Your task to perform on an android device: Go to battery settings Image 0: 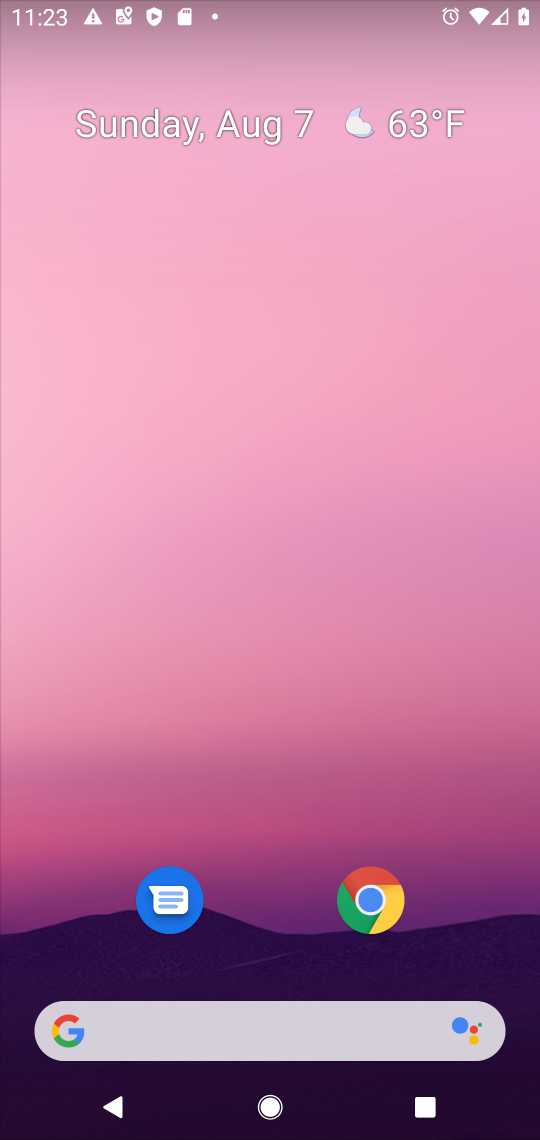
Step 0: press home button
Your task to perform on an android device: Go to battery settings Image 1: 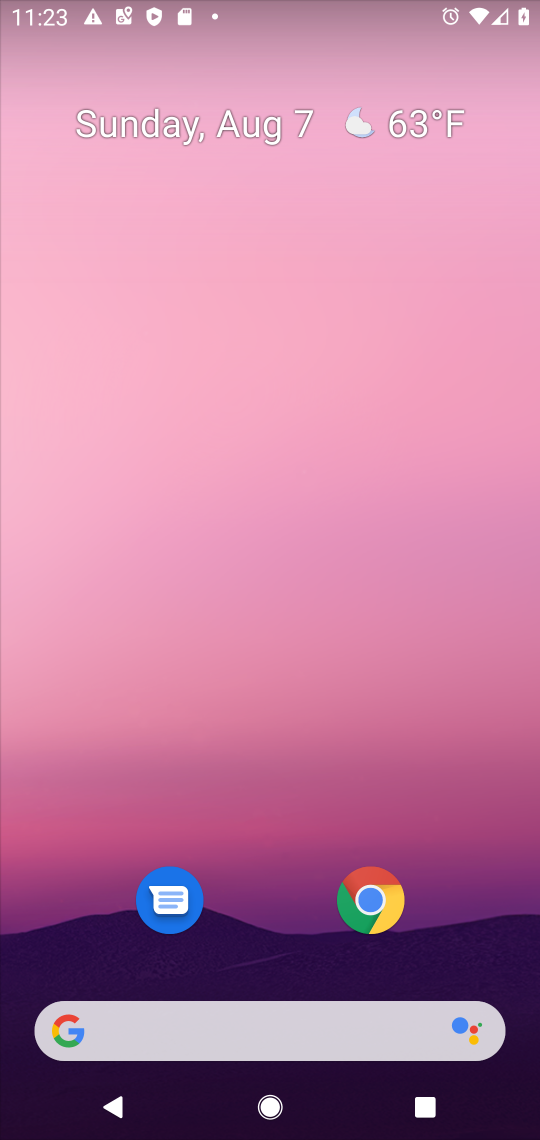
Step 1: drag from (280, 947) to (293, 48)
Your task to perform on an android device: Go to battery settings Image 2: 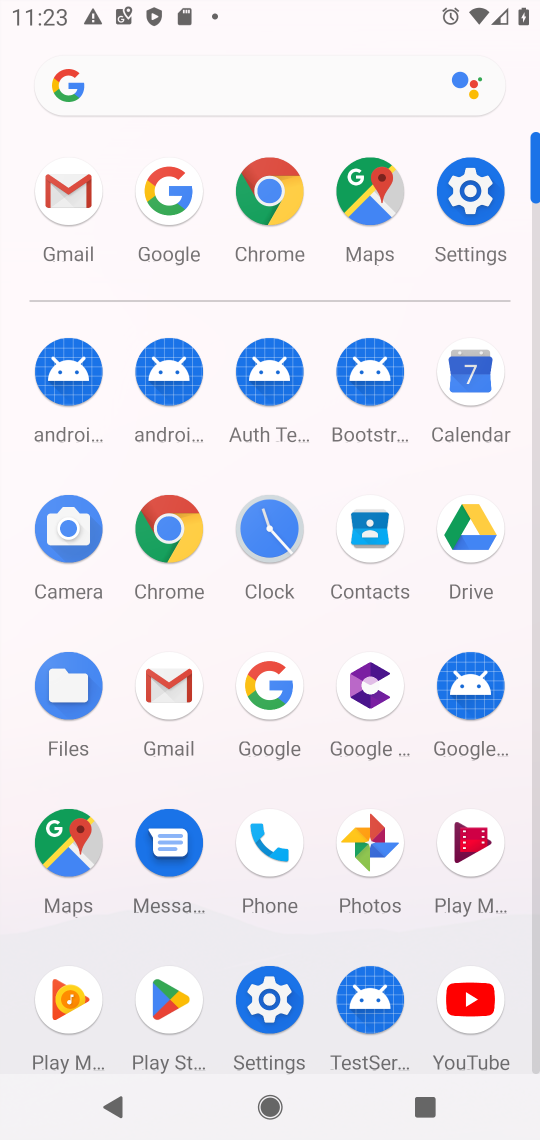
Step 2: click (268, 994)
Your task to perform on an android device: Go to battery settings Image 3: 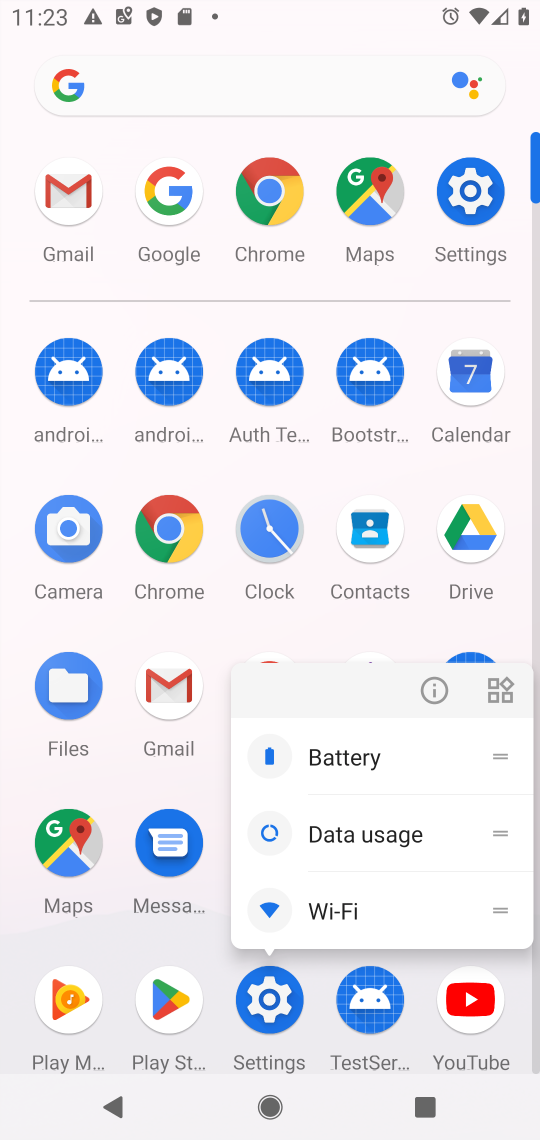
Step 3: click (262, 987)
Your task to perform on an android device: Go to battery settings Image 4: 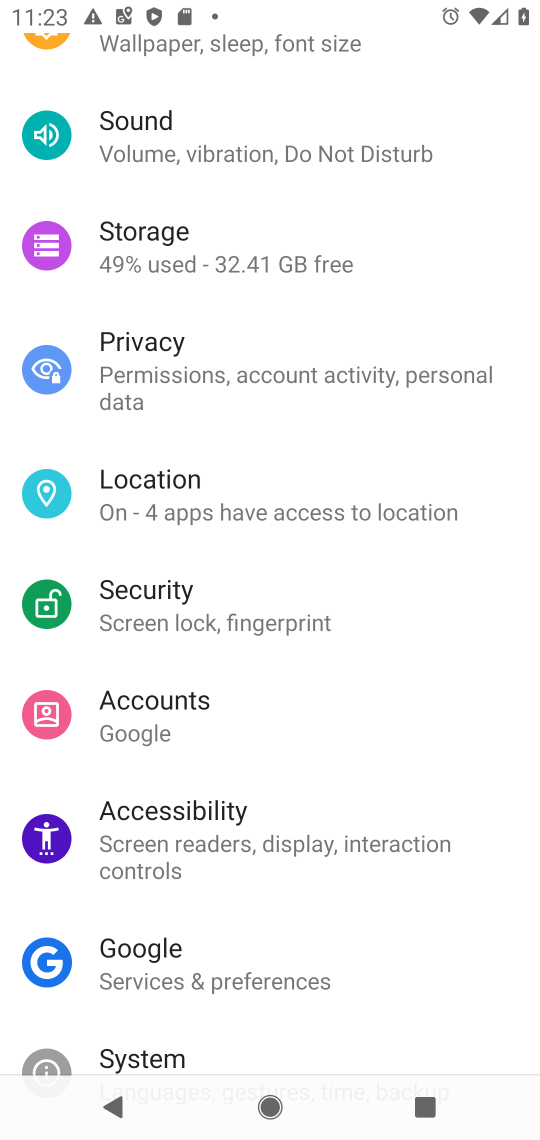
Step 4: drag from (229, 120) to (273, 810)
Your task to perform on an android device: Go to battery settings Image 5: 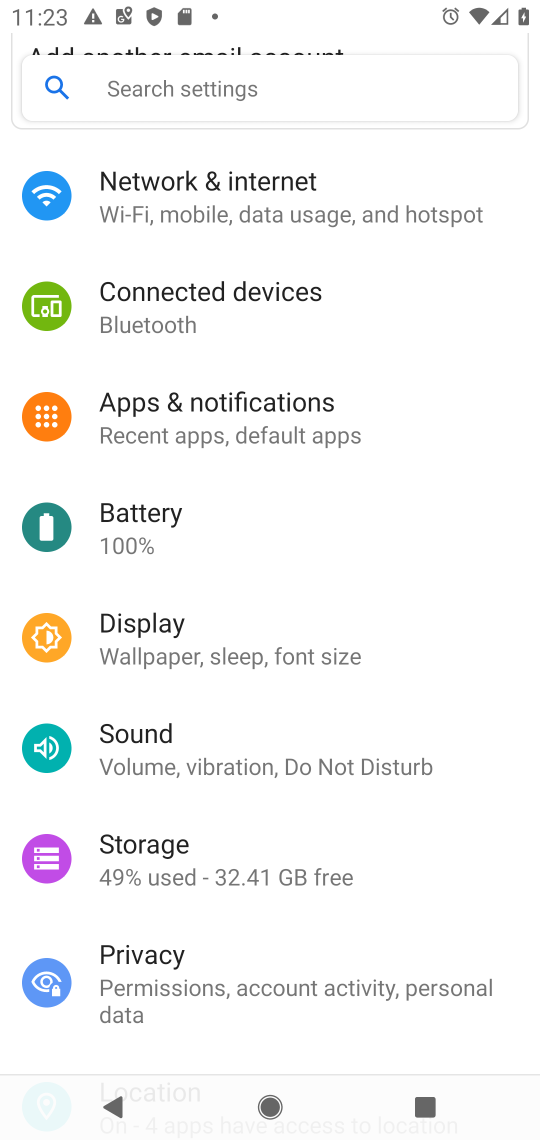
Step 5: click (199, 523)
Your task to perform on an android device: Go to battery settings Image 6: 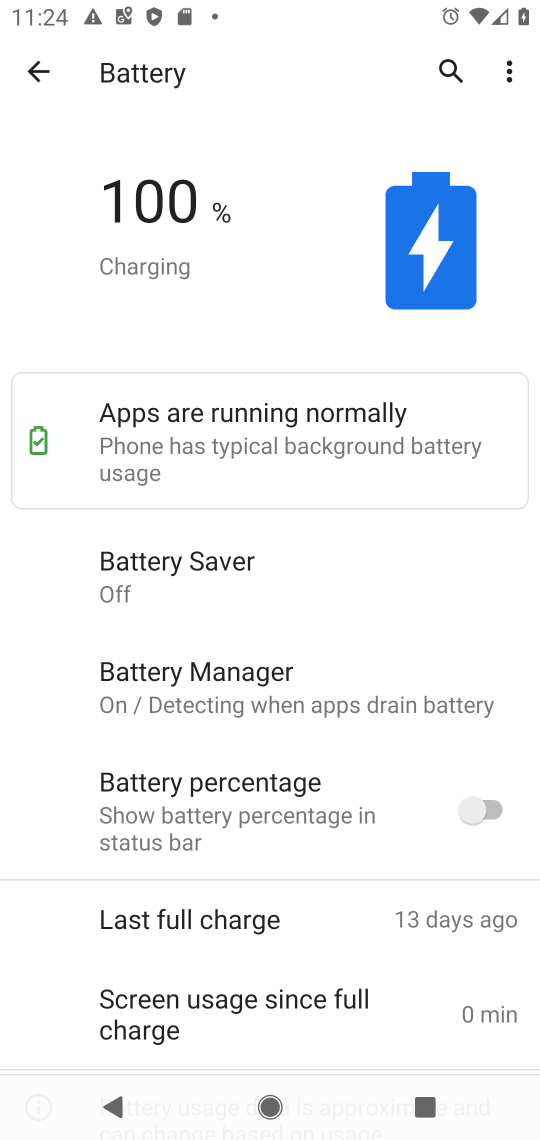
Step 6: task complete